Your task to perform on an android device: star an email in the gmail app Image 0: 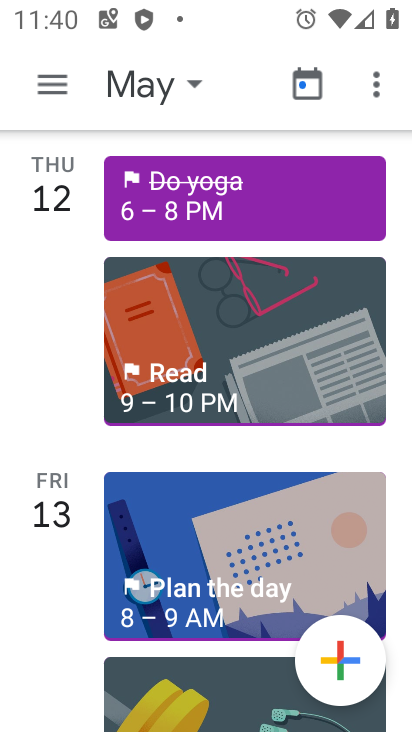
Step 0: press home button
Your task to perform on an android device: star an email in the gmail app Image 1: 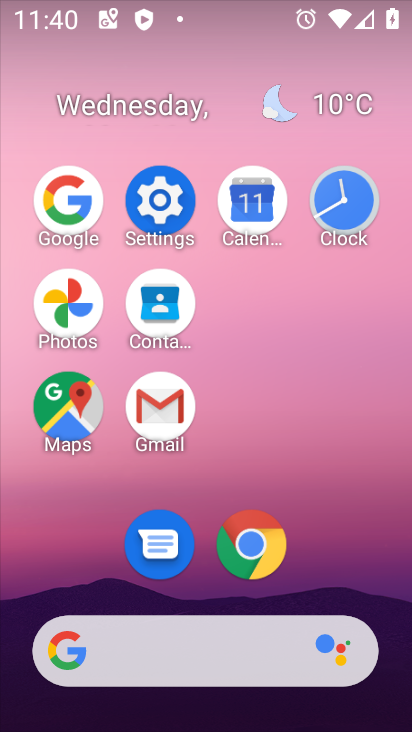
Step 1: click (164, 416)
Your task to perform on an android device: star an email in the gmail app Image 2: 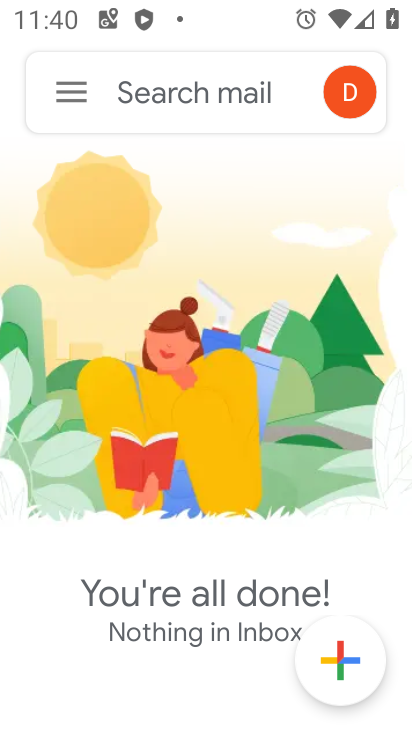
Step 2: click (53, 110)
Your task to perform on an android device: star an email in the gmail app Image 3: 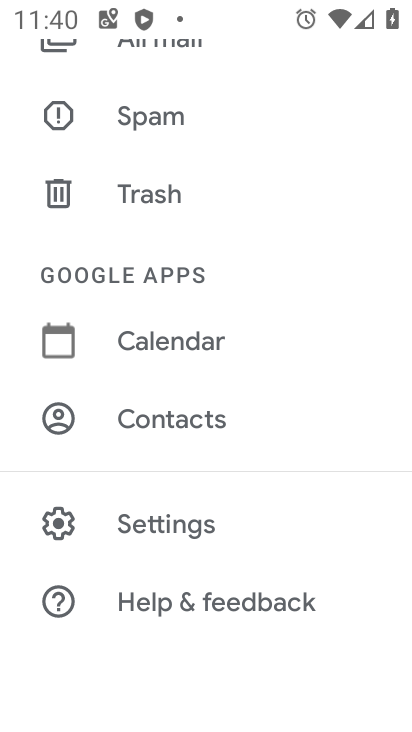
Step 3: drag from (297, 172) to (286, 526)
Your task to perform on an android device: star an email in the gmail app Image 4: 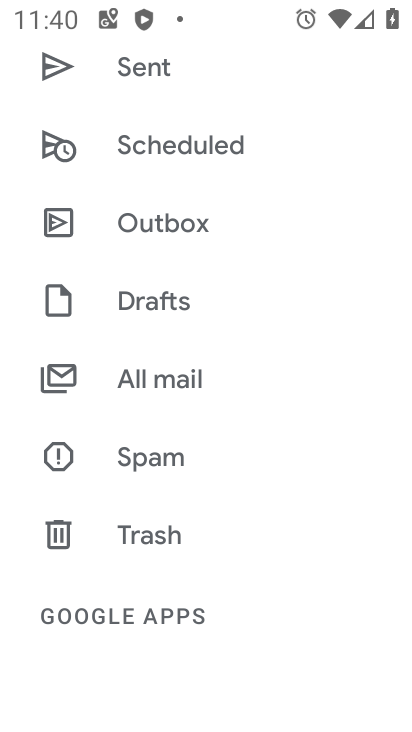
Step 4: click (192, 374)
Your task to perform on an android device: star an email in the gmail app Image 5: 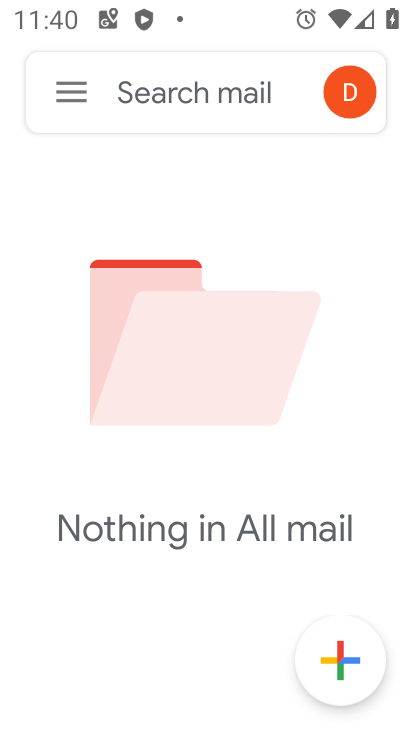
Step 5: task complete